Your task to perform on an android device: open wifi settings Image 0: 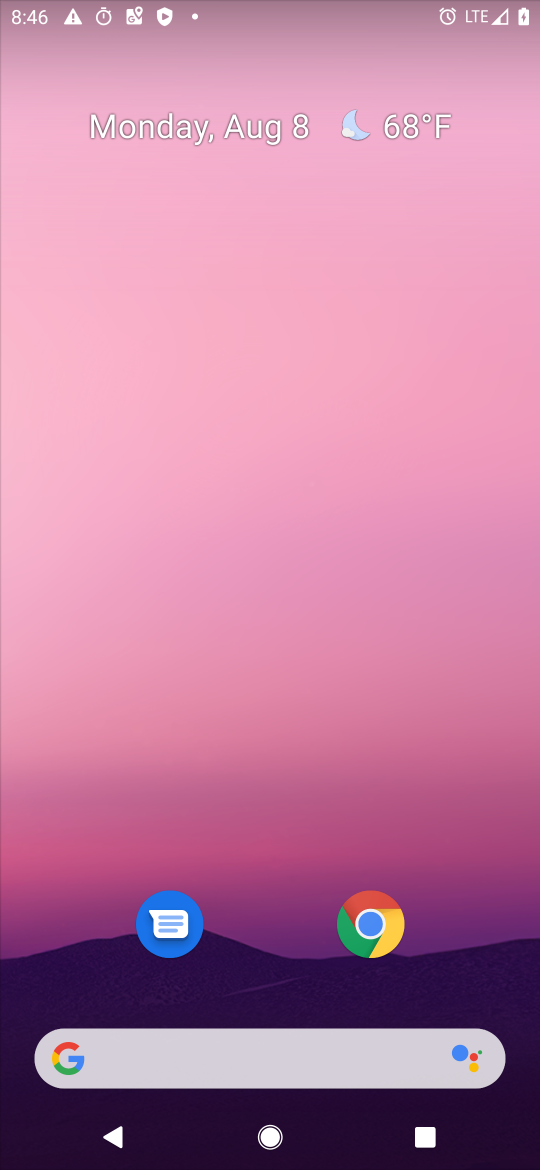
Step 0: drag from (255, 930) to (203, 128)
Your task to perform on an android device: open wifi settings Image 1: 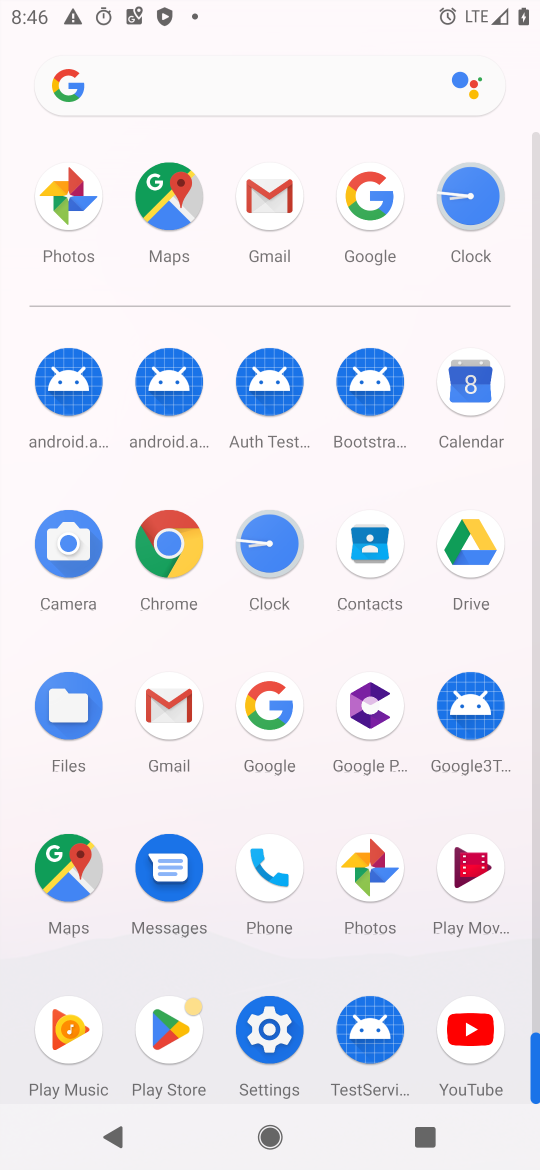
Step 1: click (273, 1040)
Your task to perform on an android device: open wifi settings Image 2: 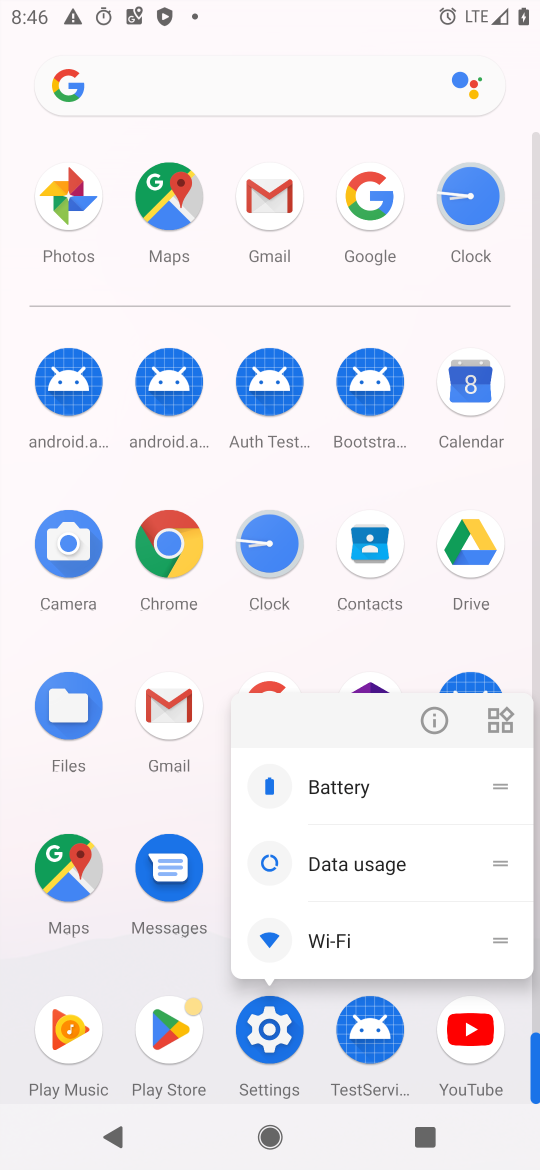
Step 2: click (278, 1014)
Your task to perform on an android device: open wifi settings Image 3: 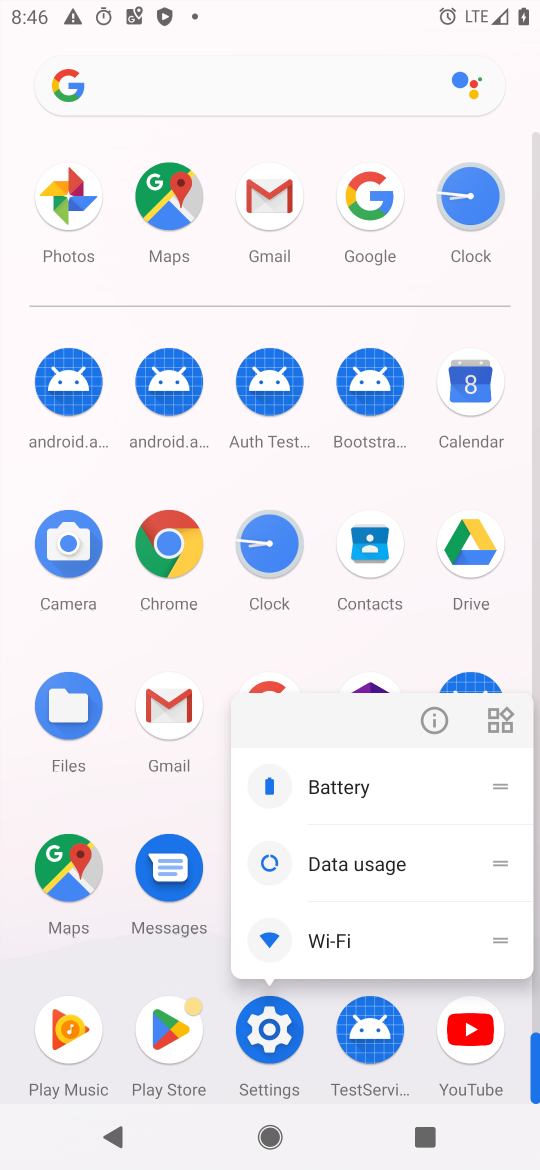
Step 3: click (278, 1014)
Your task to perform on an android device: open wifi settings Image 4: 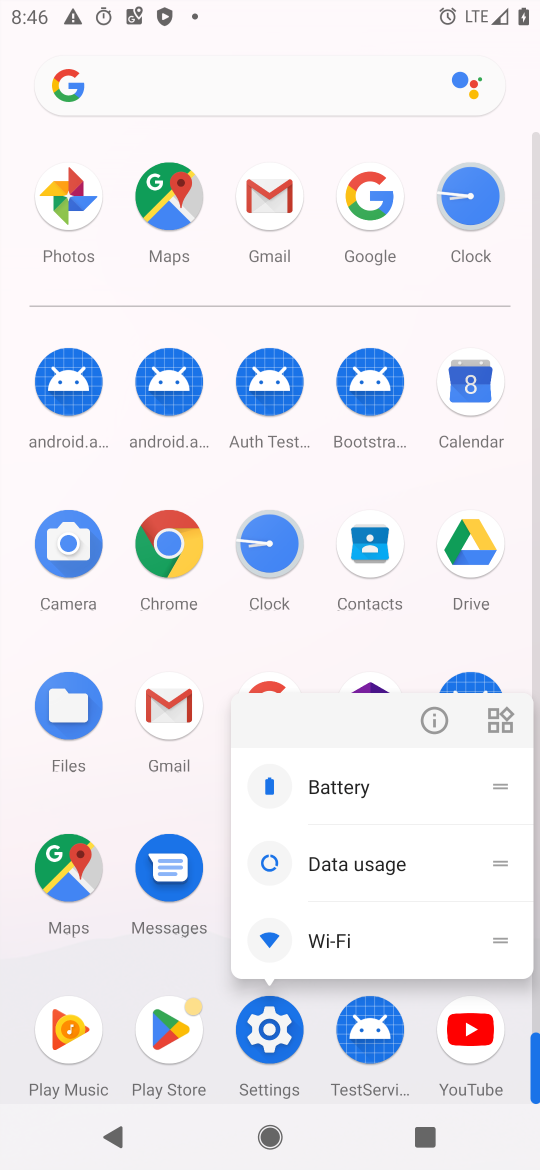
Step 4: click (450, 711)
Your task to perform on an android device: open wifi settings Image 5: 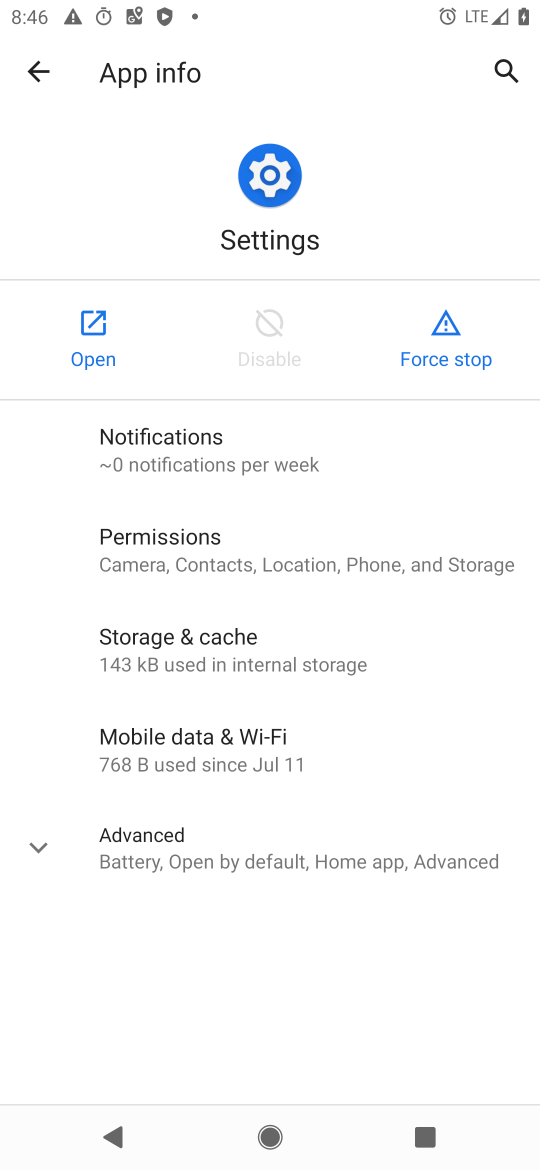
Step 5: click (96, 317)
Your task to perform on an android device: open wifi settings Image 6: 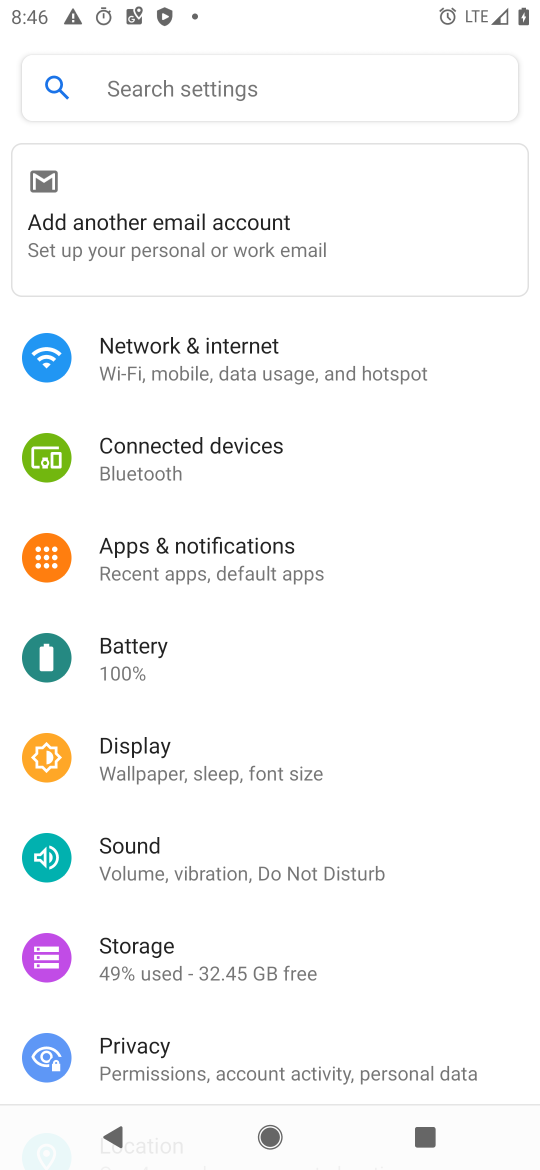
Step 6: click (163, 379)
Your task to perform on an android device: open wifi settings Image 7: 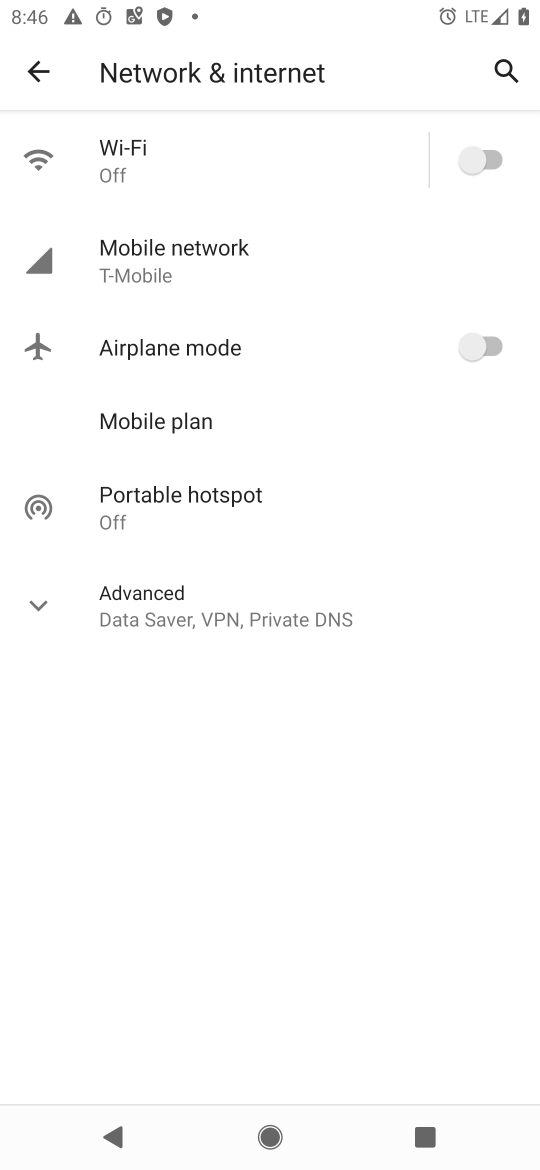
Step 7: click (108, 145)
Your task to perform on an android device: open wifi settings Image 8: 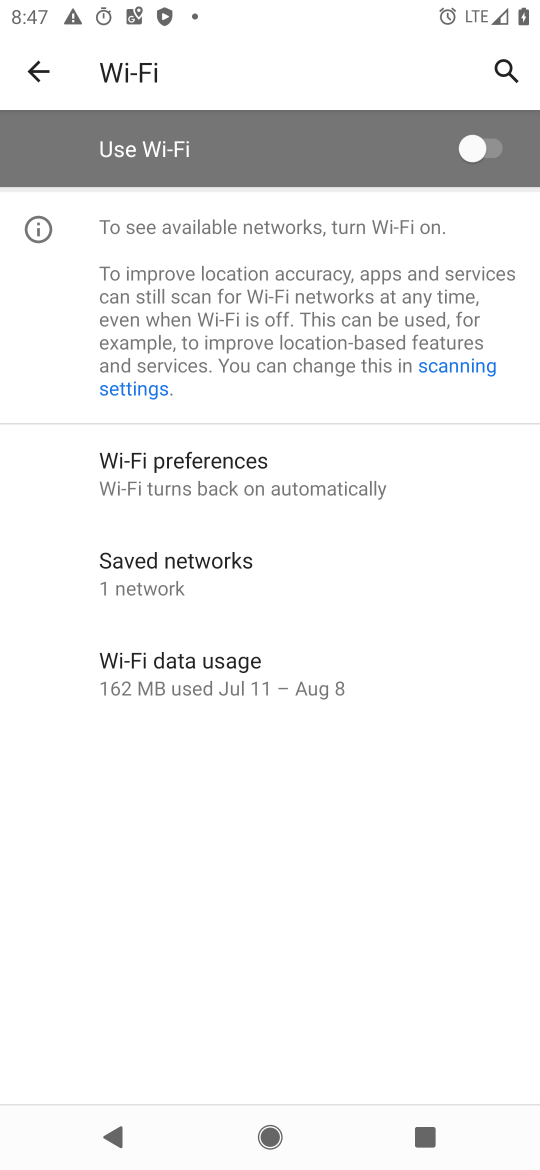
Step 8: task complete